Your task to perform on an android device: manage bookmarks in the chrome app Image 0: 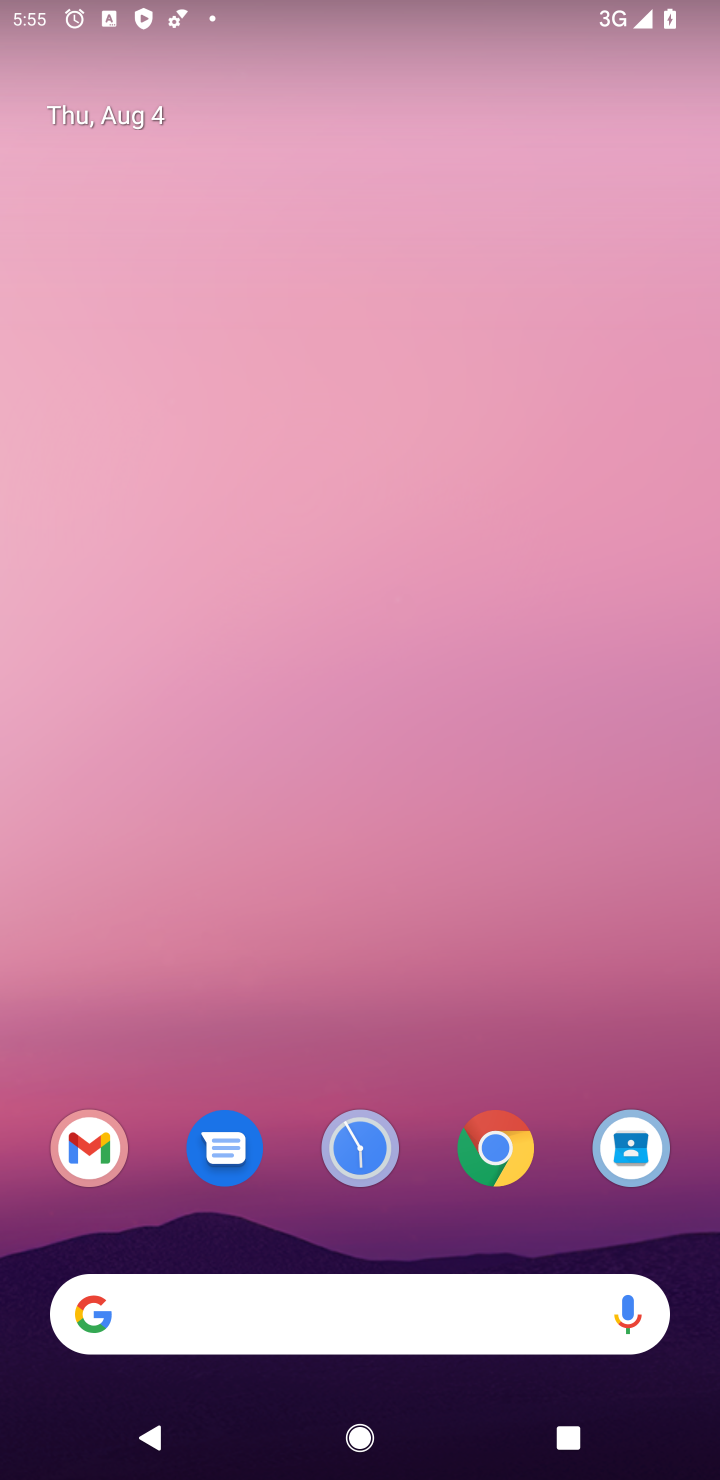
Step 0: click (494, 1141)
Your task to perform on an android device: manage bookmarks in the chrome app Image 1: 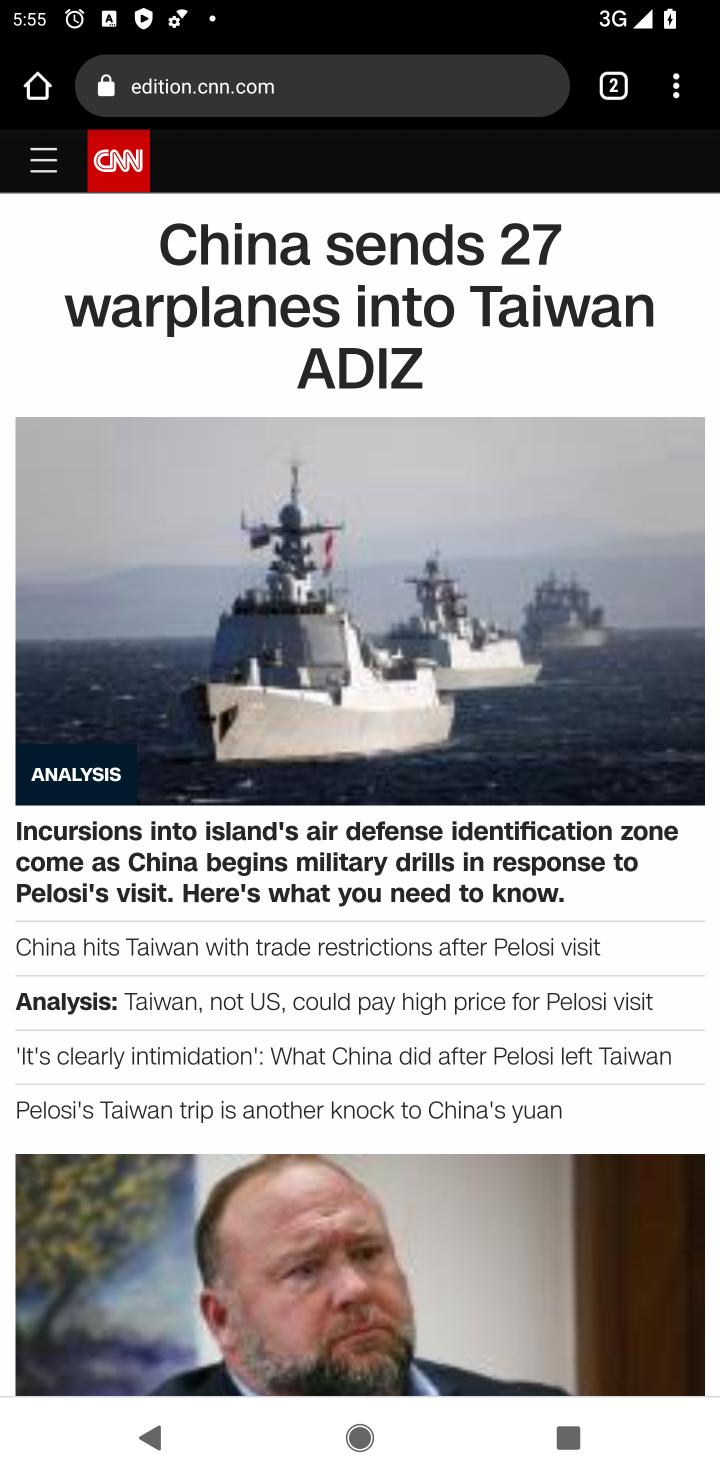
Step 1: click (675, 97)
Your task to perform on an android device: manage bookmarks in the chrome app Image 2: 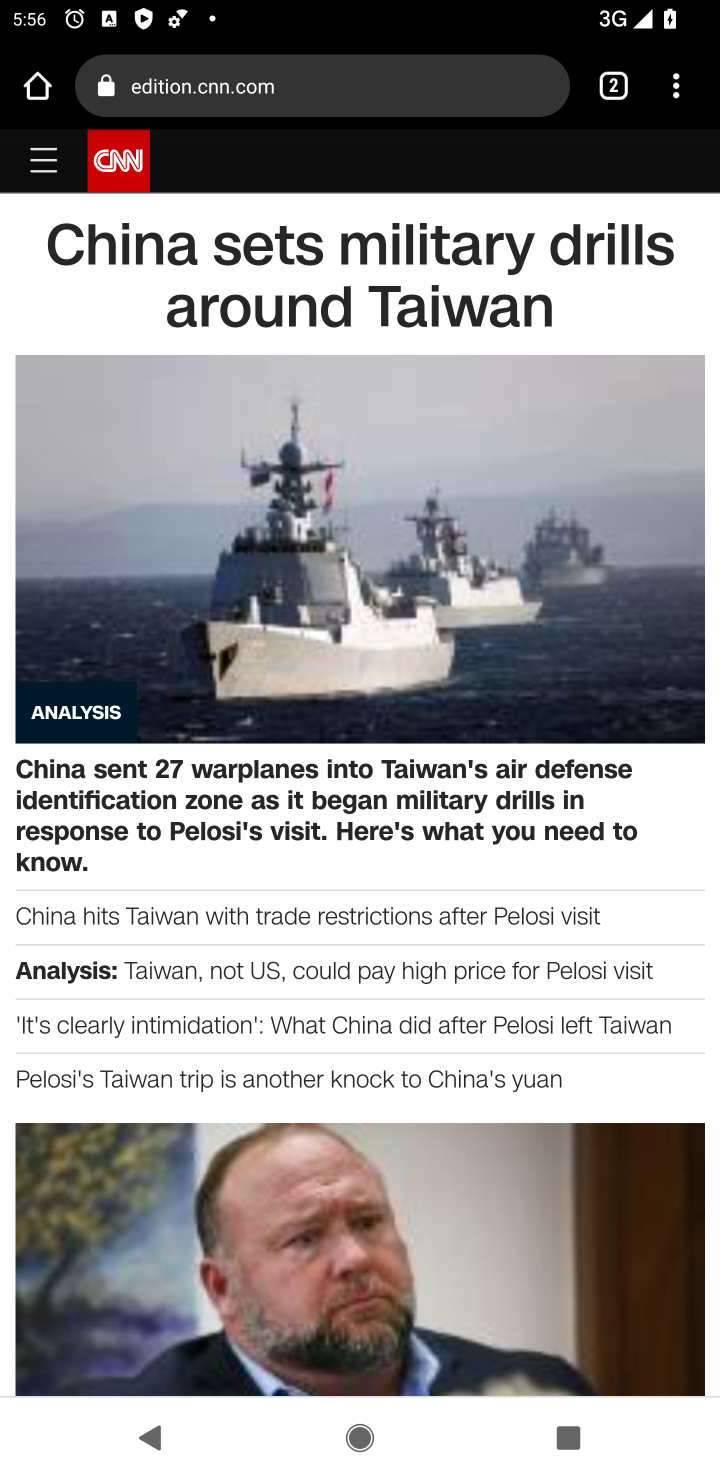
Step 2: task complete